Your task to perform on an android device: change the clock display to show seconds Image 0: 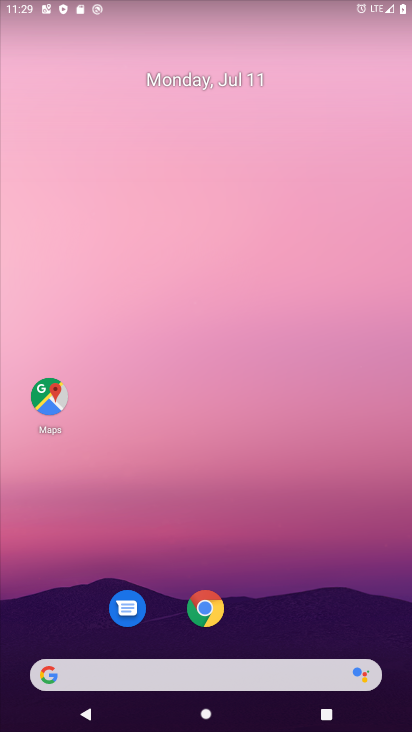
Step 0: drag from (16, 698) to (139, 215)
Your task to perform on an android device: change the clock display to show seconds Image 1: 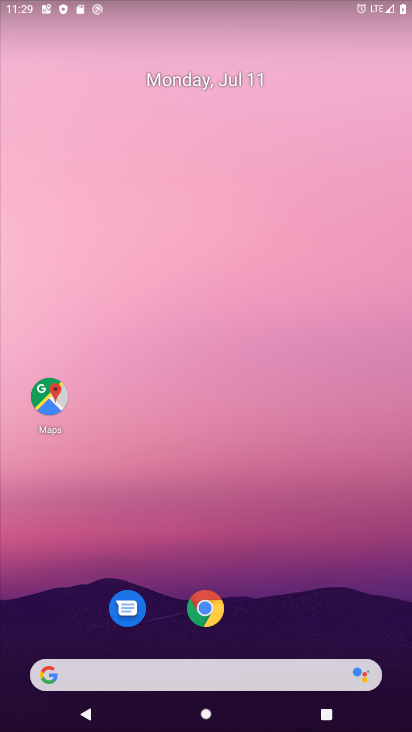
Step 1: drag from (29, 708) to (182, 80)
Your task to perform on an android device: change the clock display to show seconds Image 2: 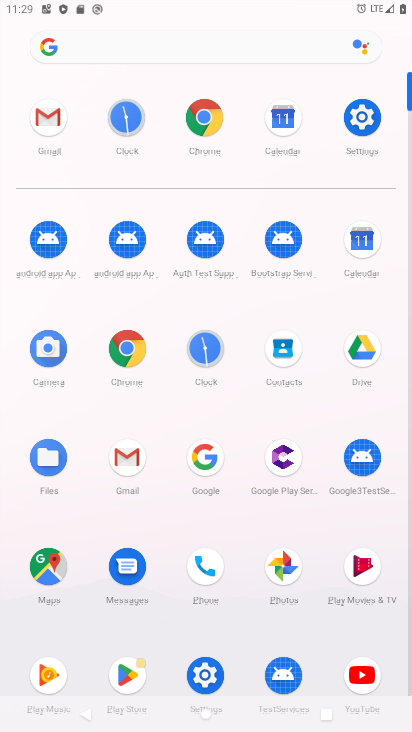
Step 2: click (208, 356)
Your task to perform on an android device: change the clock display to show seconds Image 3: 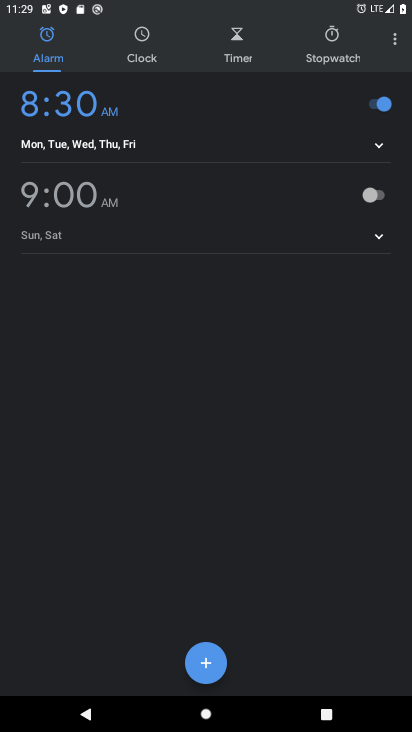
Step 3: click (143, 50)
Your task to perform on an android device: change the clock display to show seconds Image 4: 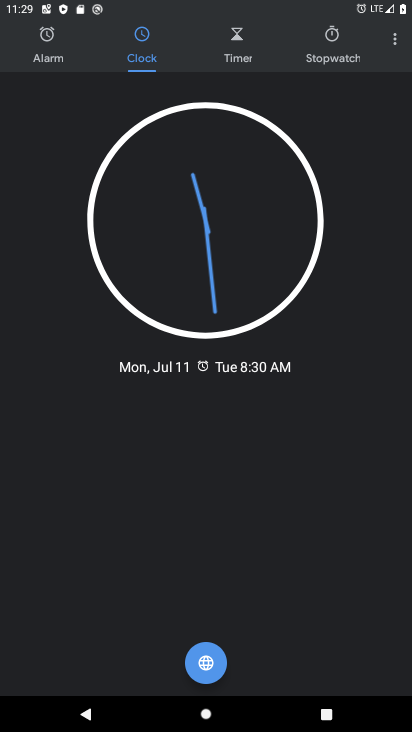
Step 4: click (402, 42)
Your task to perform on an android device: change the clock display to show seconds Image 5: 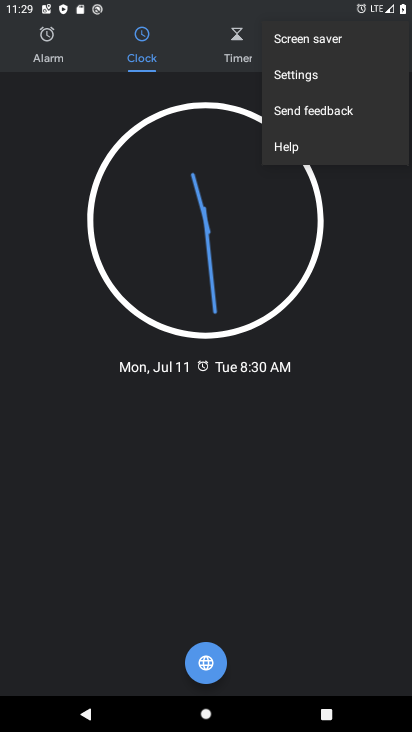
Step 5: click (298, 78)
Your task to perform on an android device: change the clock display to show seconds Image 6: 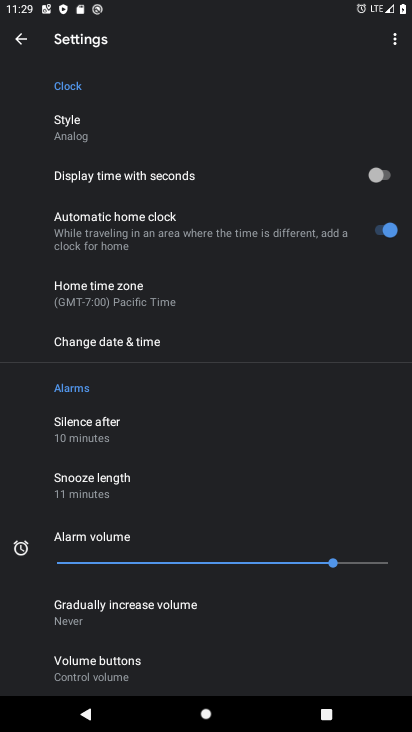
Step 6: click (25, 39)
Your task to perform on an android device: change the clock display to show seconds Image 7: 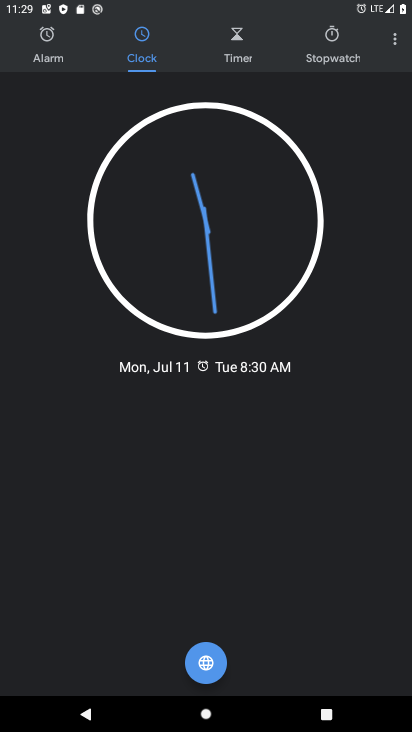
Step 7: click (385, 36)
Your task to perform on an android device: change the clock display to show seconds Image 8: 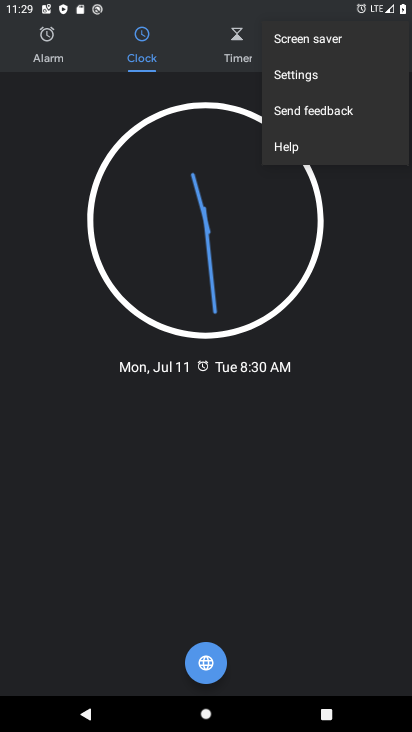
Step 8: click (309, 58)
Your task to perform on an android device: change the clock display to show seconds Image 9: 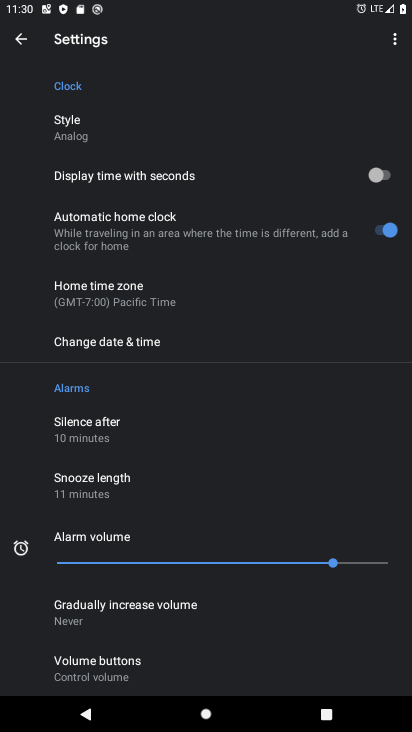
Step 9: click (380, 166)
Your task to perform on an android device: change the clock display to show seconds Image 10: 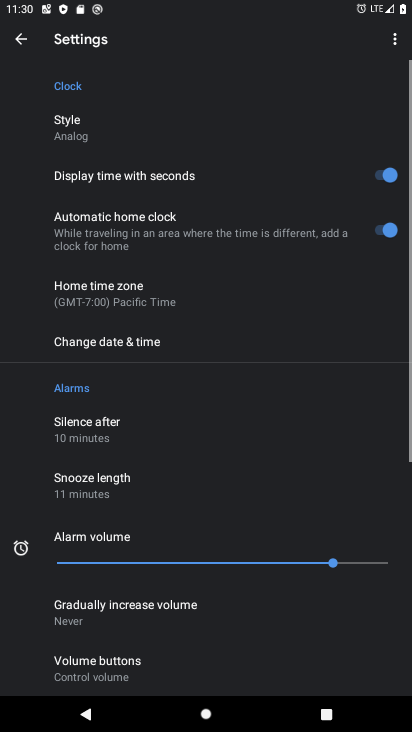
Step 10: task complete